Your task to perform on an android device: check battery use Image 0: 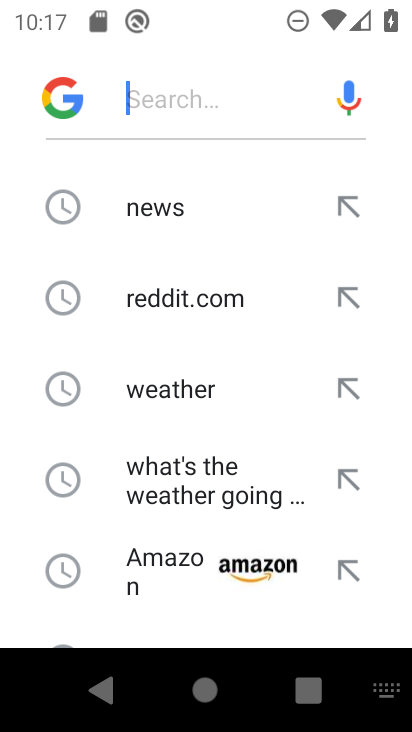
Step 0: press home button
Your task to perform on an android device: check battery use Image 1: 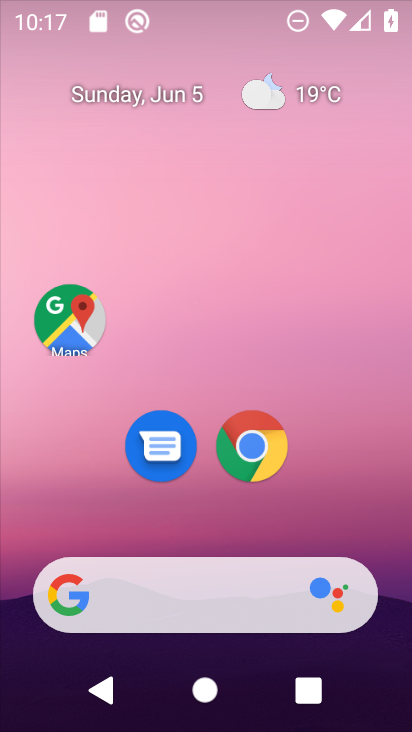
Step 1: drag from (338, 499) to (323, 9)
Your task to perform on an android device: check battery use Image 2: 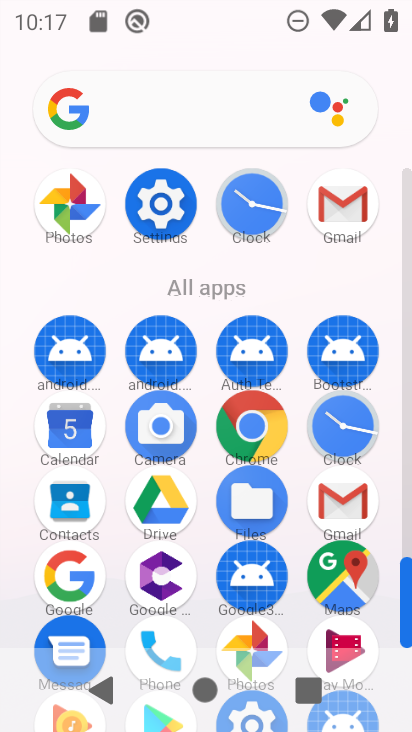
Step 2: click (168, 208)
Your task to perform on an android device: check battery use Image 3: 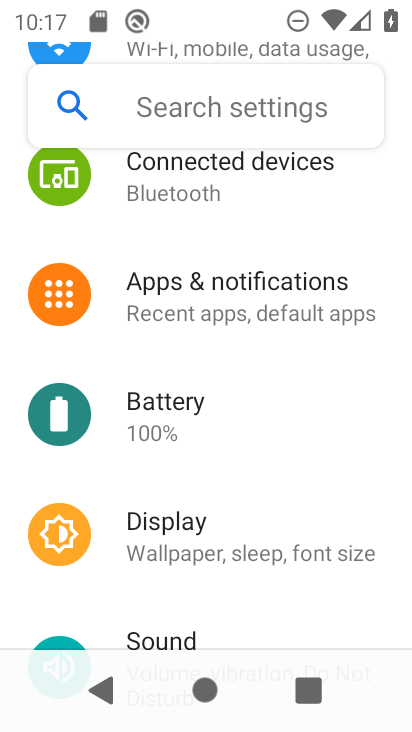
Step 3: click (186, 426)
Your task to perform on an android device: check battery use Image 4: 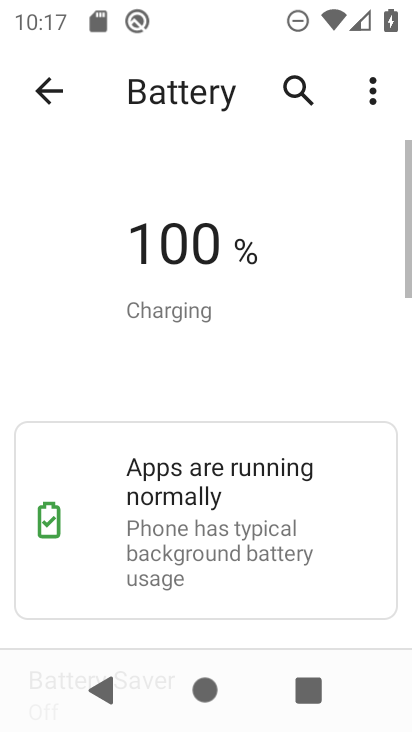
Step 4: click (381, 62)
Your task to perform on an android device: check battery use Image 5: 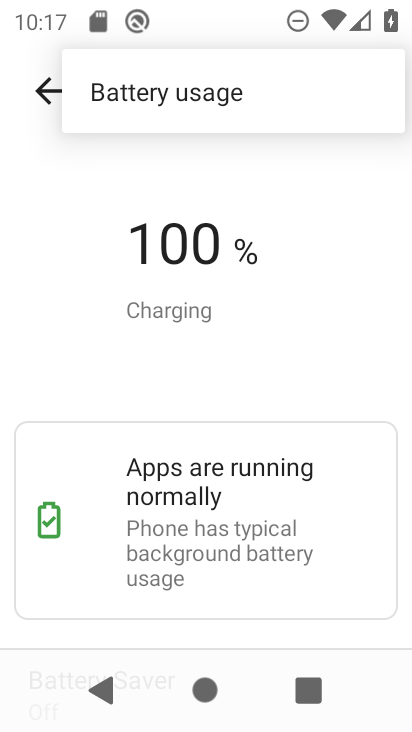
Step 5: click (231, 105)
Your task to perform on an android device: check battery use Image 6: 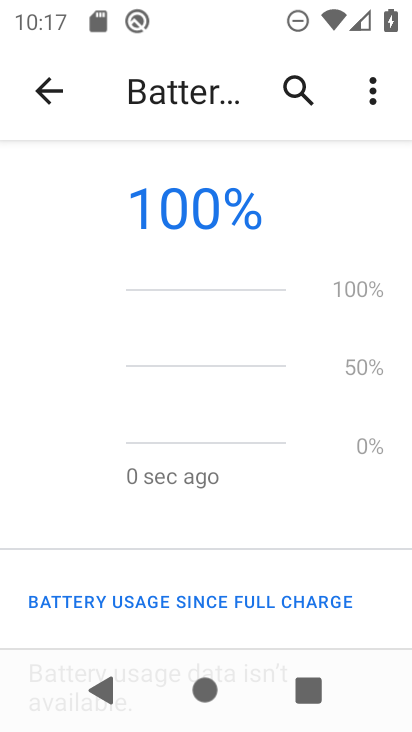
Step 6: task complete